Your task to perform on an android device: toggle data saver in the chrome app Image 0: 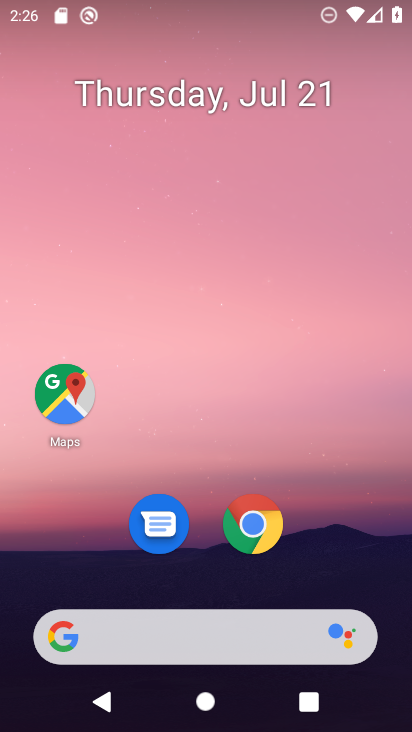
Step 0: click (240, 514)
Your task to perform on an android device: toggle data saver in the chrome app Image 1: 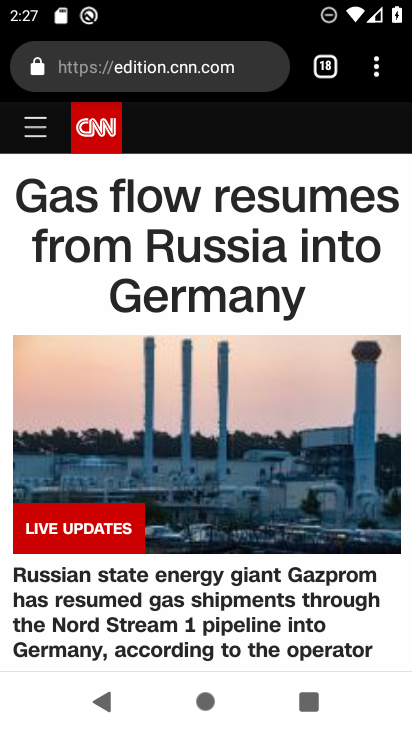
Step 1: drag from (375, 75) to (193, 531)
Your task to perform on an android device: toggle data saver in the chrome app Image 2: 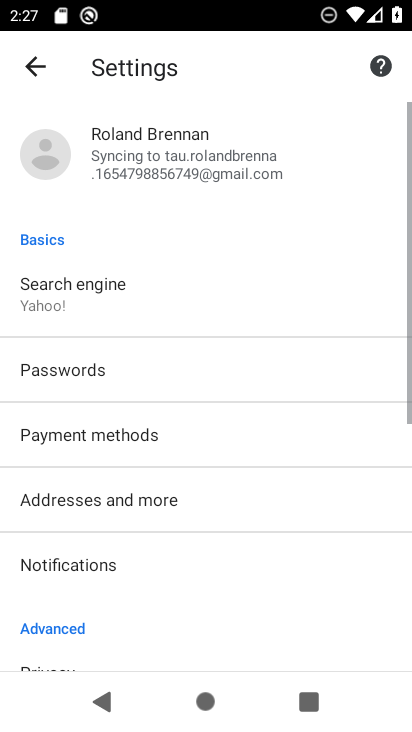
Step 2: drag from (166, 581) to (251, 49)
Your task to perform on an android device: toggle data saver in the chrome app Image 3: 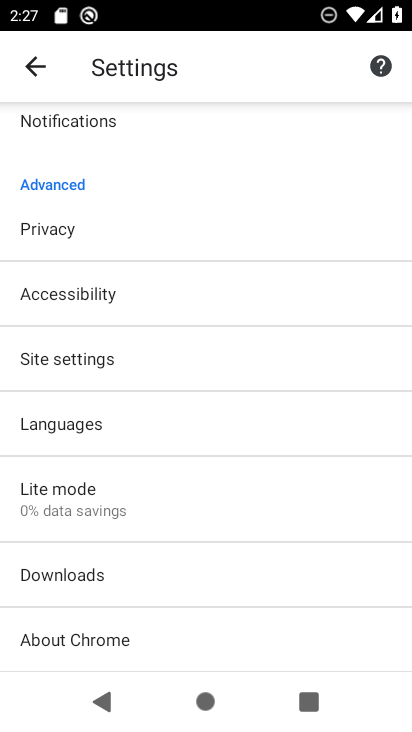
Step 3: click (92, 505)
Your task to perform on an android device: toggle data saver in the chrome app Image 4: 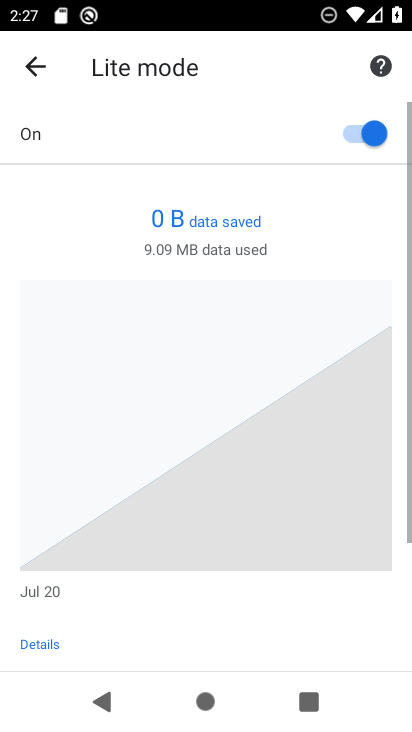
Step 4: click (356, 132)
Your task to perform on an android device: toggle data saver in the chrome app Image 5: 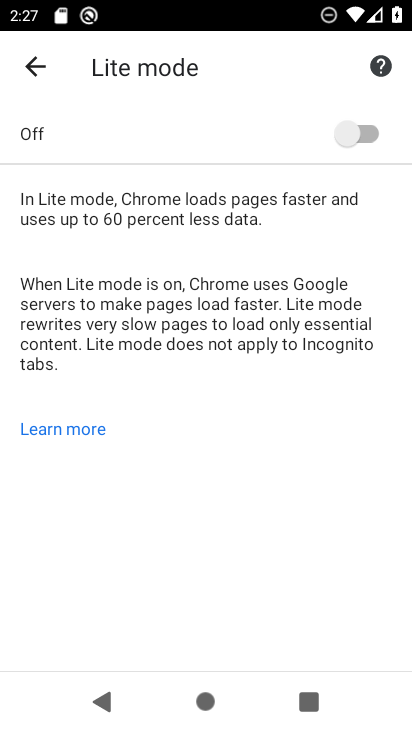
Step 5: task complete